Your task to perform on an android device: Open the phone app and click the voicemail tab. Image 0: 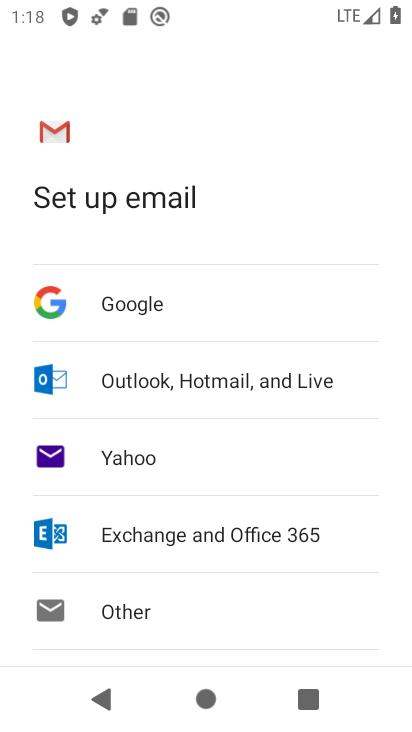
Step 0: press home button
Your task to perform on an android device: Open the phone app and click the voicemail tab. Image 1: 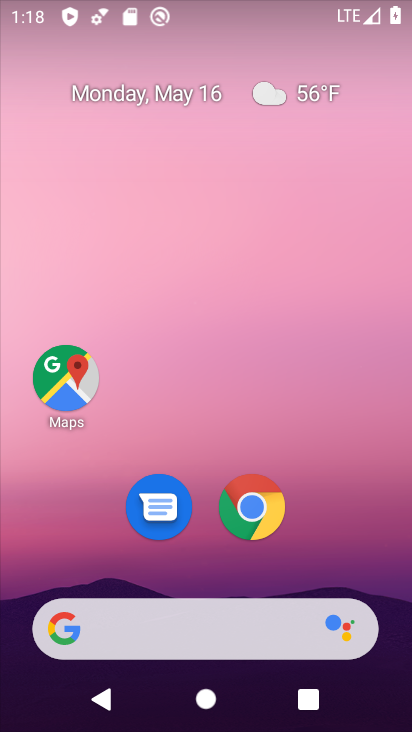
Step 1: drag from (207, 413) to (179, 296)
Your task to perform on an android device: Open the phone app and click the voicemail tab. Image 2: 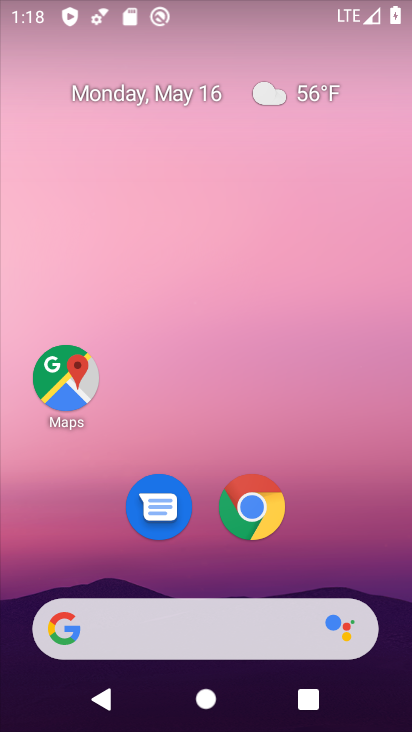
Step 2: drag from (207, 561) to (213, 212)
Your task to perform on an android device: Open the phone app and click the voicemail tab. Image 3: 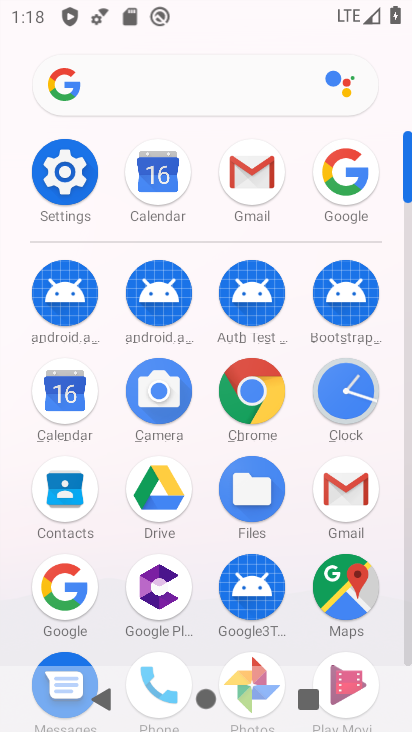
Step 3: drag from (184, 510) to (220, 216)
Your task to perform on an android device: Open the phone app and click the voicemail tab. Image 4: 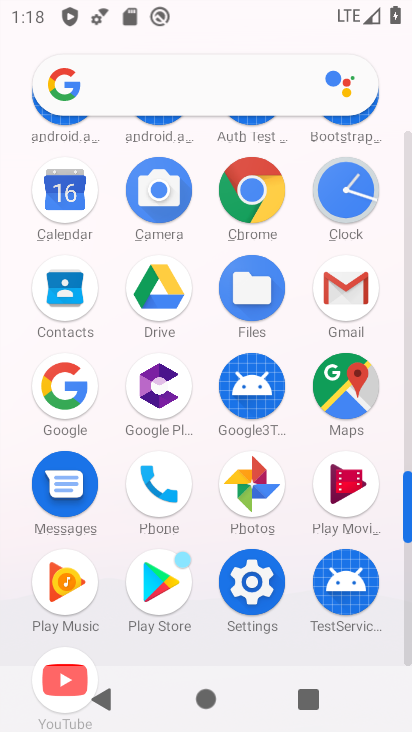
Step 4: drag from (197, 281) to (205, 513)
Your task to perform on an android device: Open the phone app and click the voicemail tab. Image 5: 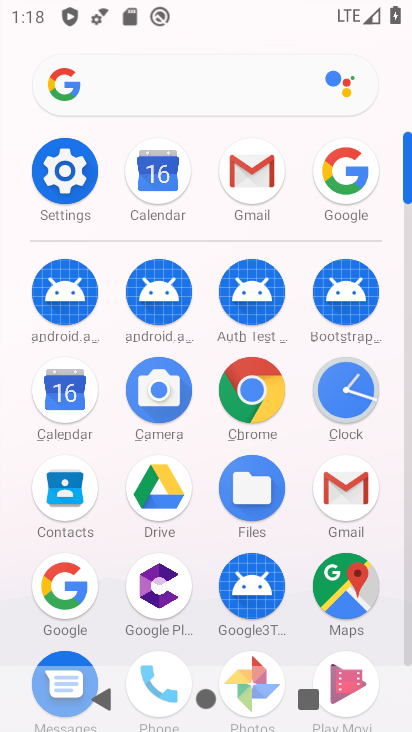
Step 5: drag from (144, 582) to (165, 322)
Your task to perform on an android device: Open the phone app and click the voicemail tab. Image 6: 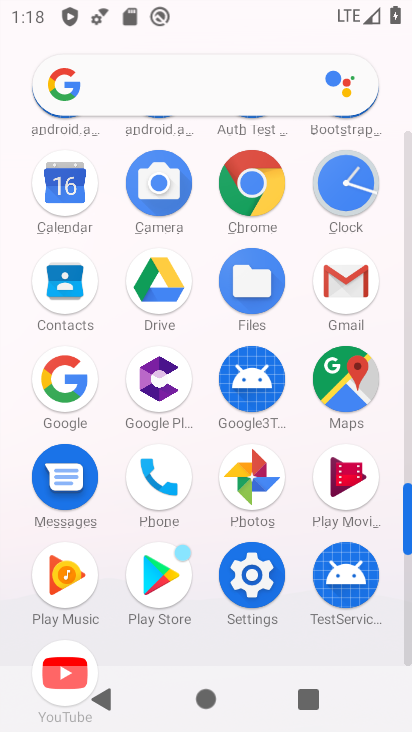
Step 6: click (151, 495)
Your task to perform on an android device: Open the phone app and click the voicemail tab. Image 7: 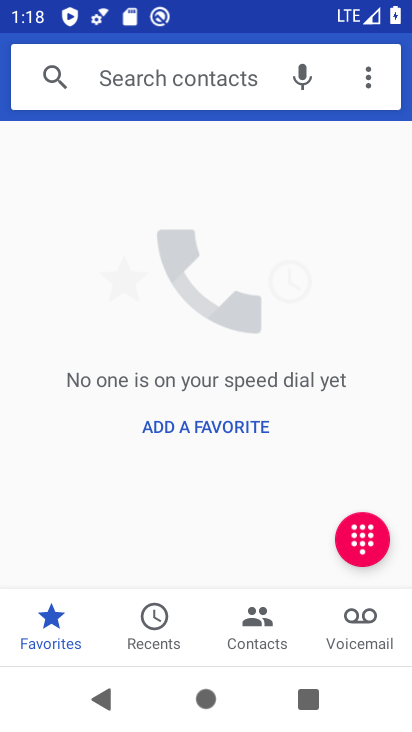
Step 7: click (345, 616)
Your task to perform on an android device: Open the phone app and click the voicemail tab. Image 8: 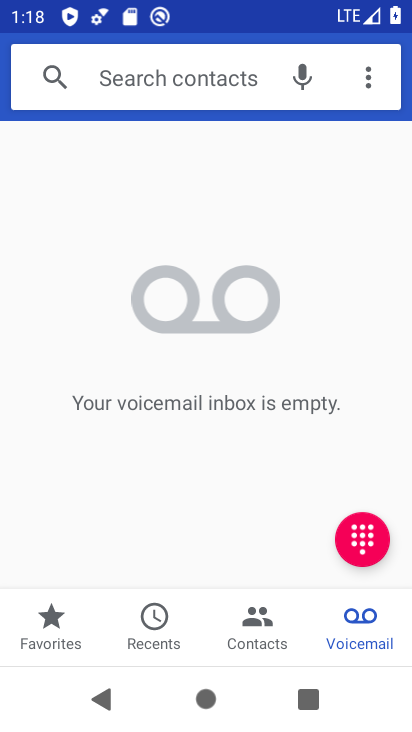
Step 8: task complete